Your task to perform on an android device: turn off javascript in the chrome app Image 0: 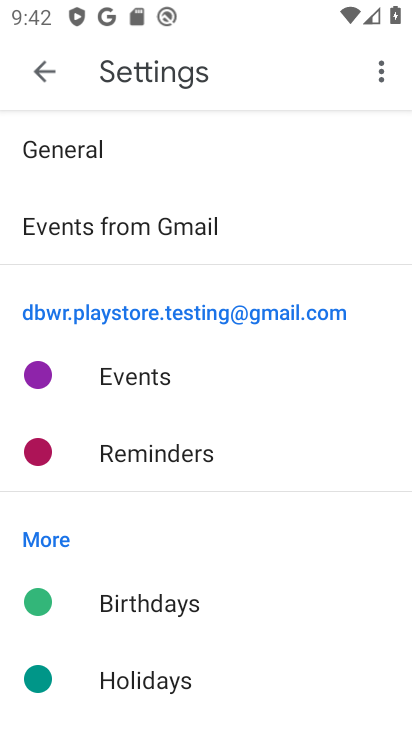
Step 0: press home button
Your task to perform on an android device: turn off javascript in the chrome app Image 1: 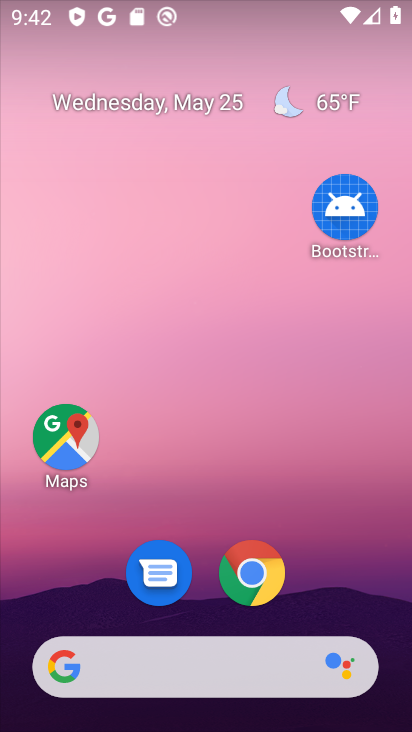
Step 1: click (238, 583)
Your task to perform on an android device: turn off javascript in the chrome app Image 2: 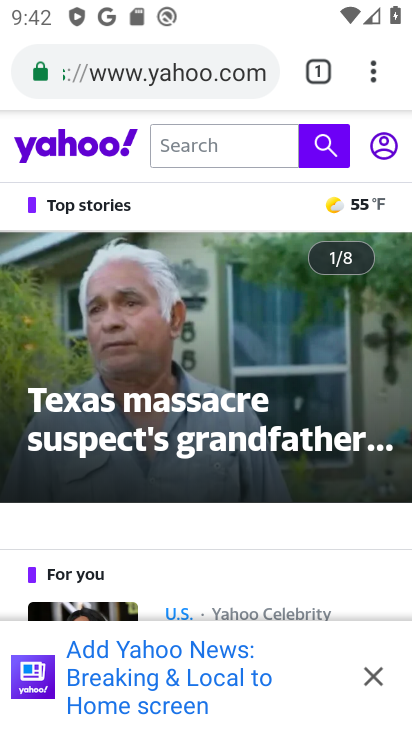
Step 2: click (378, 58)
Your task to perform on an android device: turn off javascript in the chrome app Image 3: 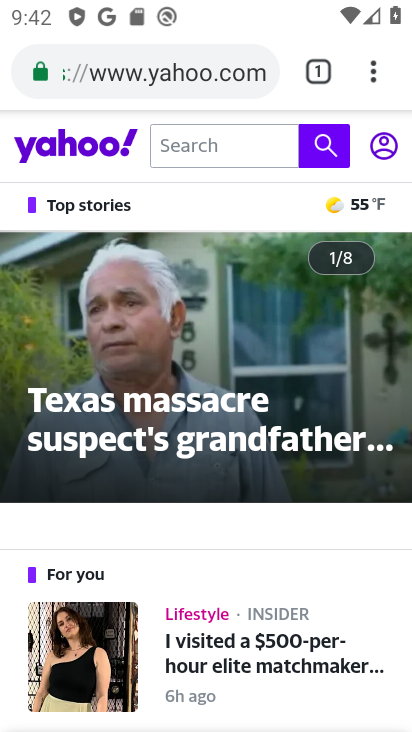
Step 3: click (375, 80)
Your task to perform on an android device: turn off javascript in the chrome app Image 4: 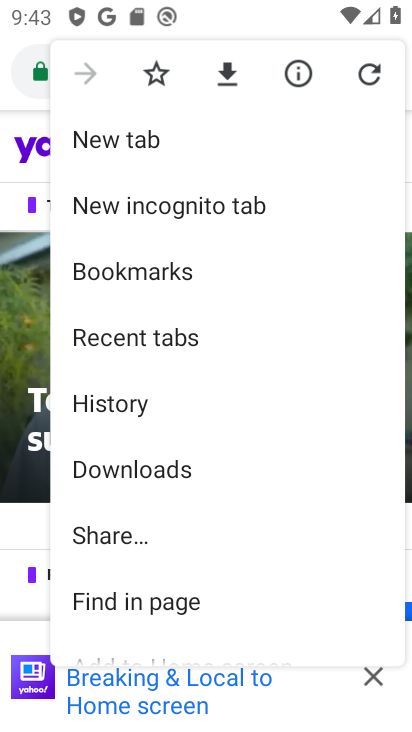
Step 4: drag from (236, 597) to (222, 402)
Your task to perform on an android device: turn off javascript in the chrome app Image 5: 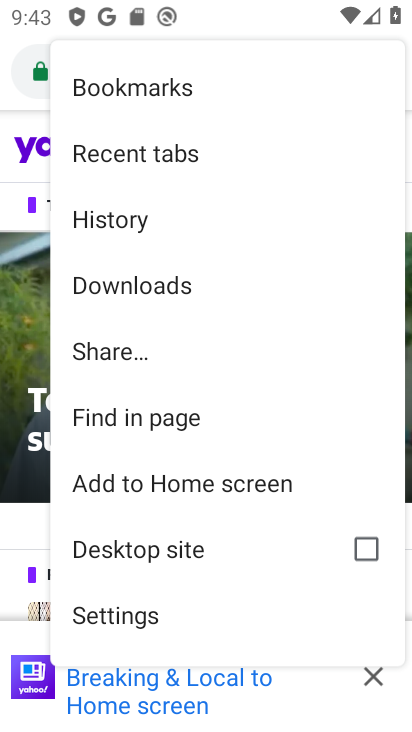
Step 5: click (166, 621)
Your task to perform on an android device: turn off javascript in the chrome app Image 6: 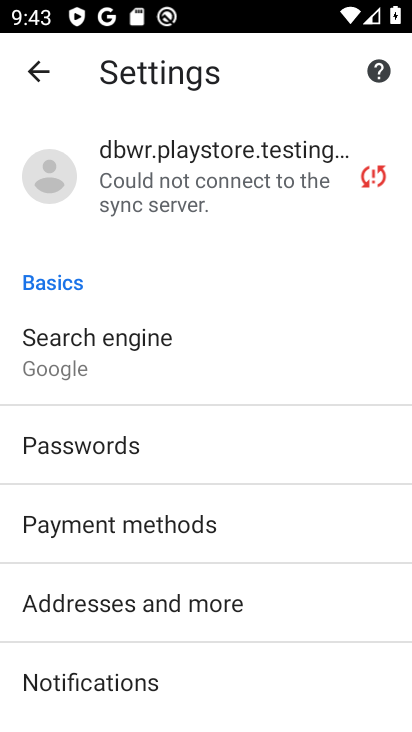
Step 6: drag from (231, 665) to (220, 296)
Your task to perform on an android device: turn off javascript in the chrome app Image 7: 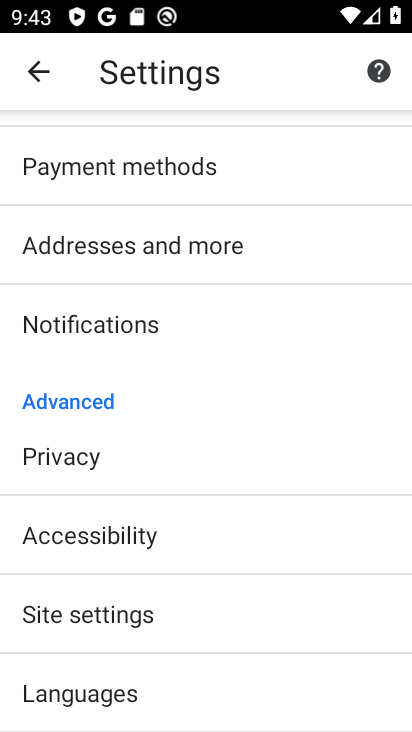
Step 7: click (175, 595)
Your task to perform on an android device: turn off javascript in the chrome app Image 8: 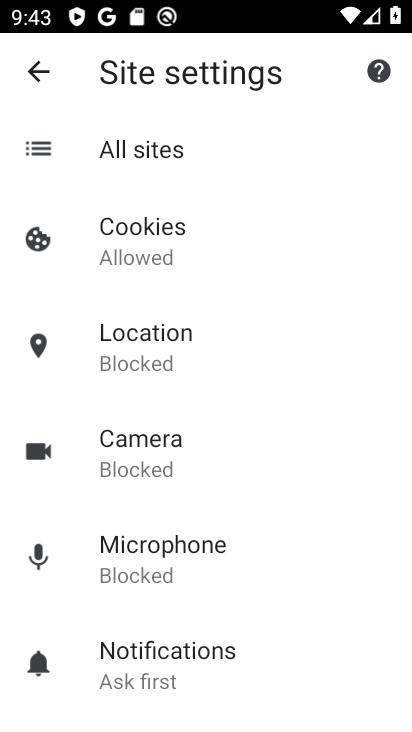
Step 8: drag from (205, 629) to (196, 231)
Your task to perform on an android device: turn off javascript in the chrome app Image 9: 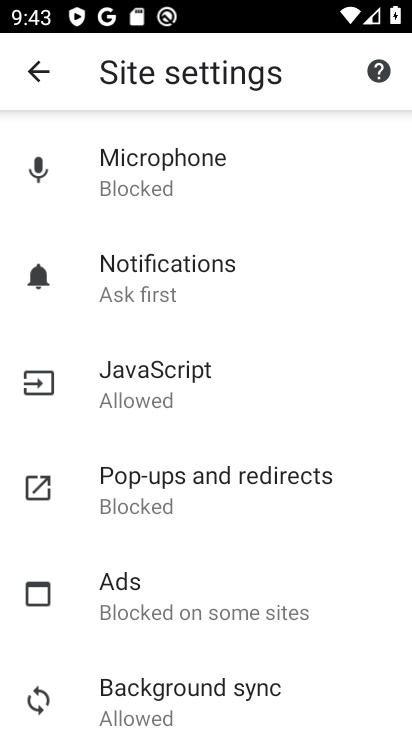
Step 9: click (179, 376)
Your task to perform on an android device: turn off javascript in the chrome app Image 10: 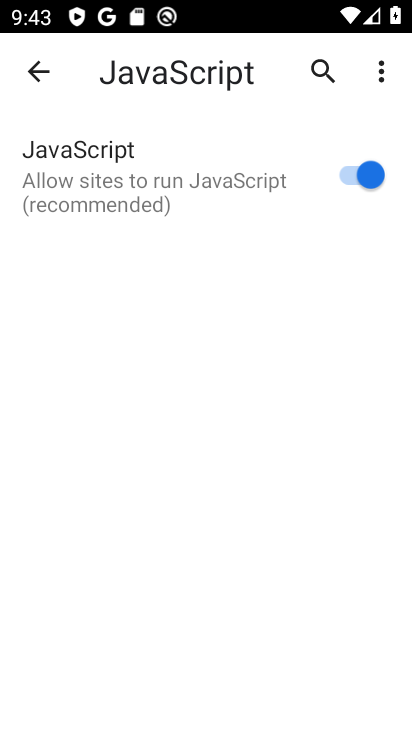
Step 10: click (347, 167)
Your task to perform on an android device: turn off javascript in the chrome app Image 11: 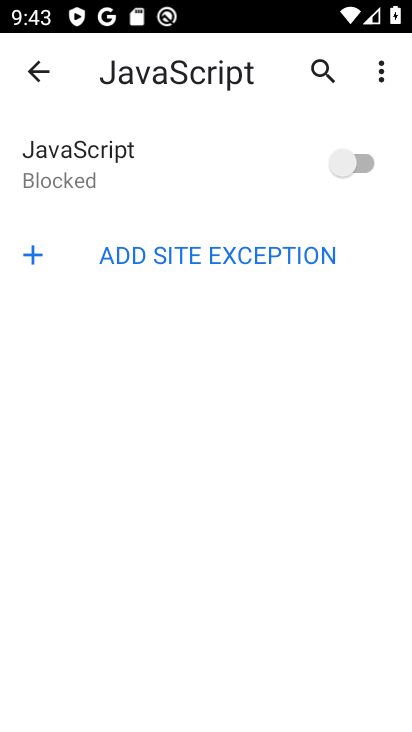
Step 11: task complete